Your task to perform on an android device: search for starred emails in the gmail app Image 0: 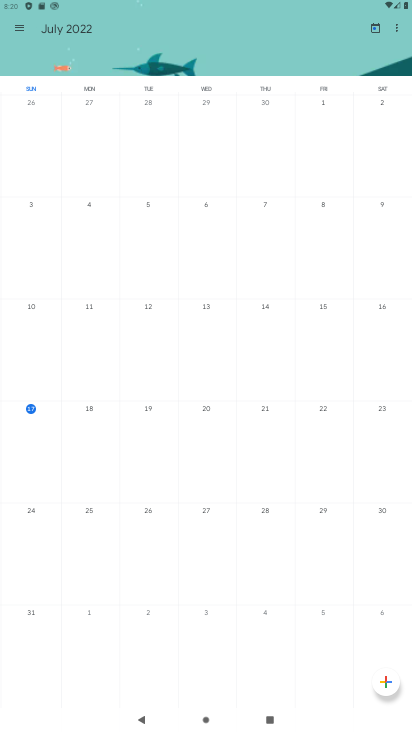
Step 0: press home button
Your task to perform on an android device: search for starred emails in the gmail app Image 1: 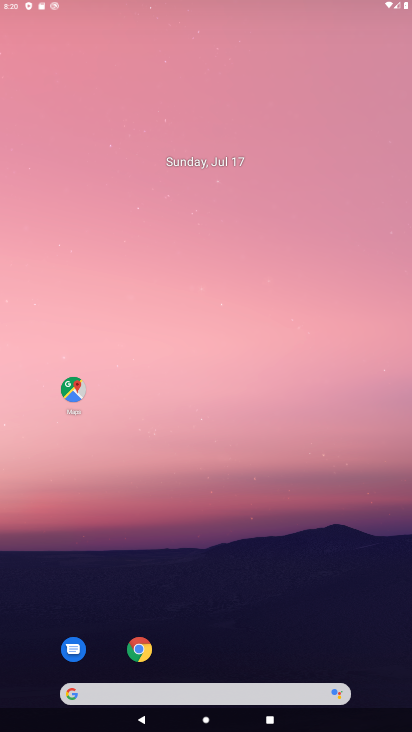
Step 1: drag from (227, 686) to (206, 177)
Your task to perform on an android device: search for starred emails in the gmail app Image 2: 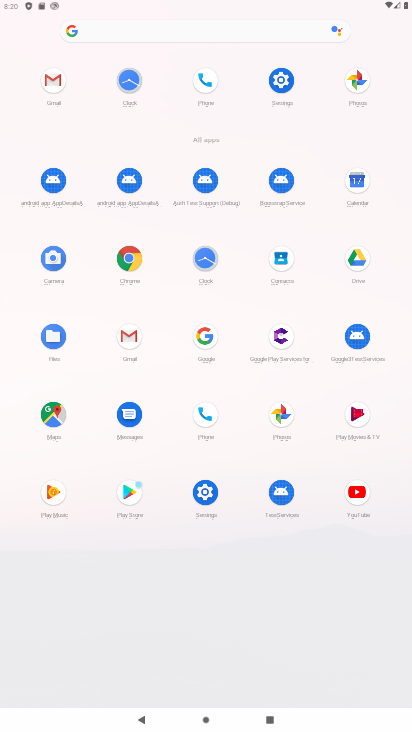
Step 2: click (128, 340)
Your task to perform on an android device: search for starred emails in the gmail app Image 3: 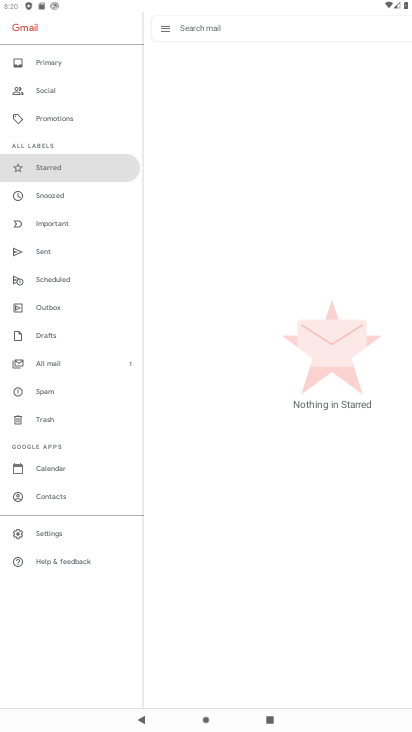
Step 3: task complete